Your task to perform on an android device: Go to Maps Image 0: 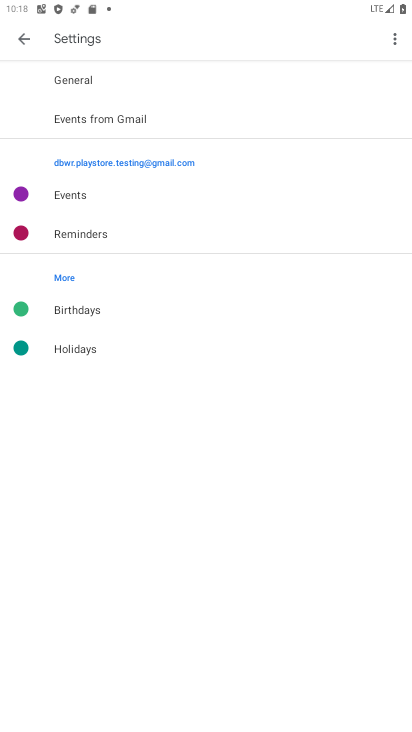
Step 0: press home button
Your task to perform on an android device: Go to Maps Image 1: 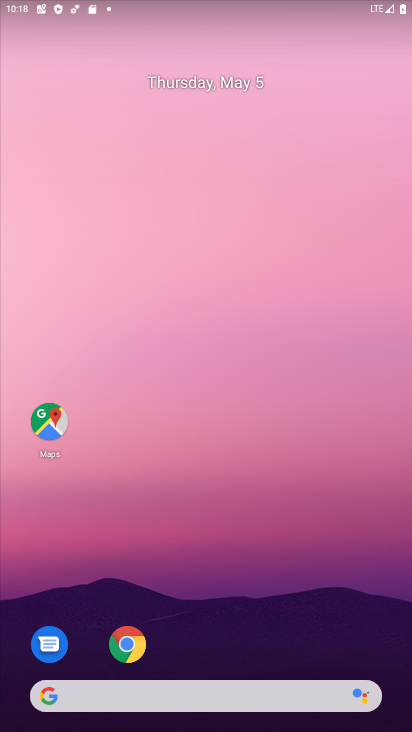
Step 1: click (56, 434)
Your task to perform on an android device: Go to Maps Image 2: 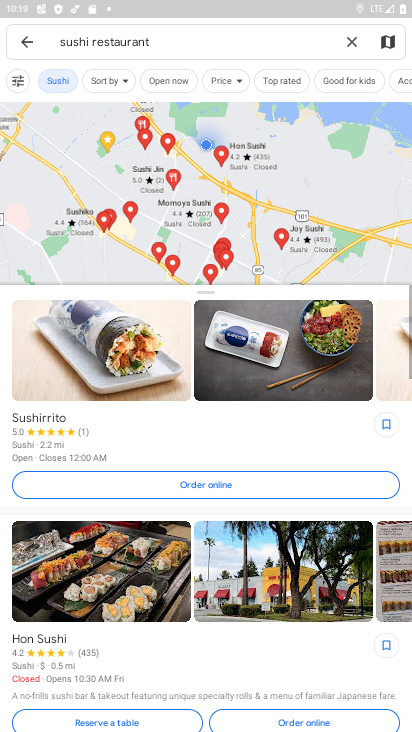
Step 2: click (38, 43)
Your task to perform on an android device: Go to Maps Image 3: 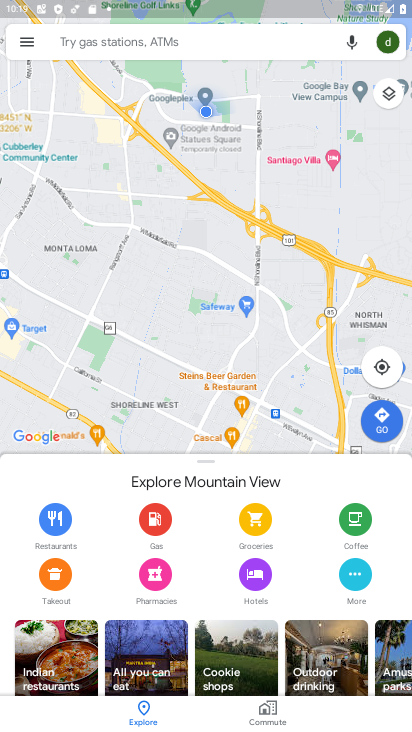
Step 3: task complete